Your task to perform on an android device: turn on translation in the chrome app Image 0: 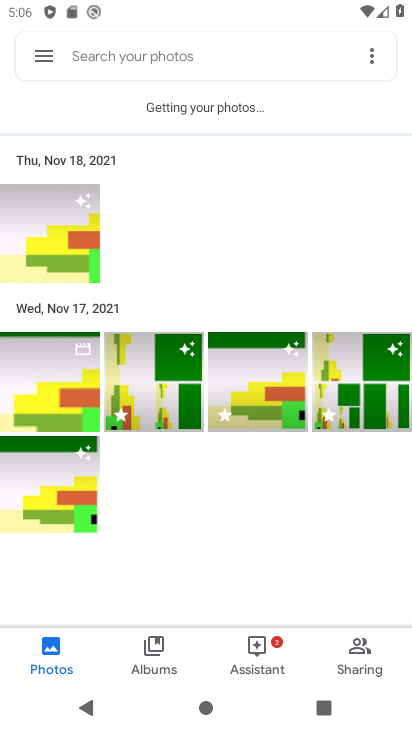
Step 0: press back button
Your task to perform on an android device: turn on translation in the chrome app Image 1: 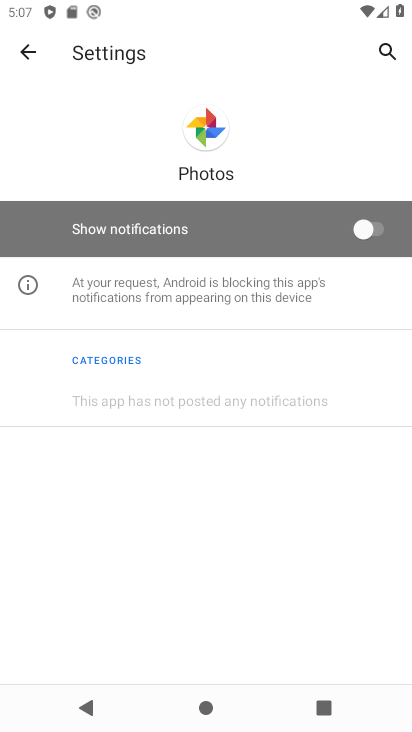
Step 1: press back button
Your task to perform on an android device: turn on translation in the chrome app Image 2: 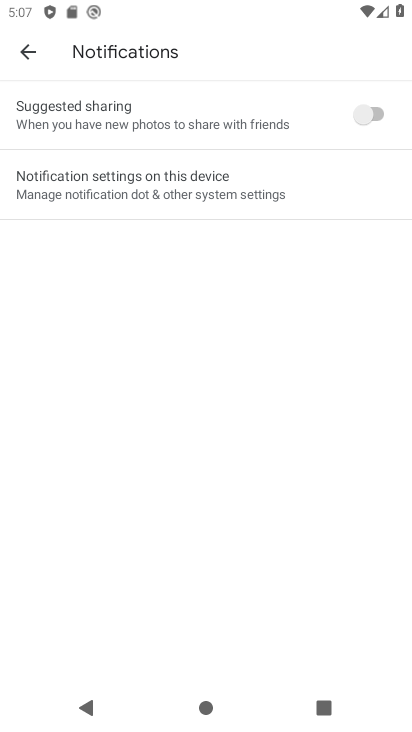
Step 2: press home button
Your task to perform on an android device: turn on translation in the chrome app Image 3: 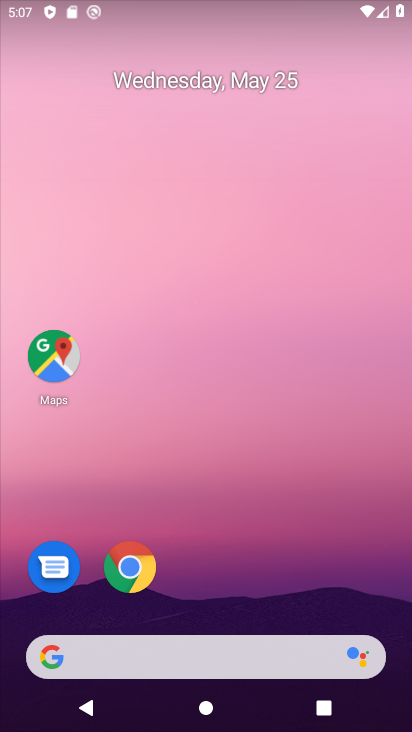
Step 3: drag from (265, 503) to (239, 62)
Your task to perform on an android device: turn on translation in the chrome app Image 4: 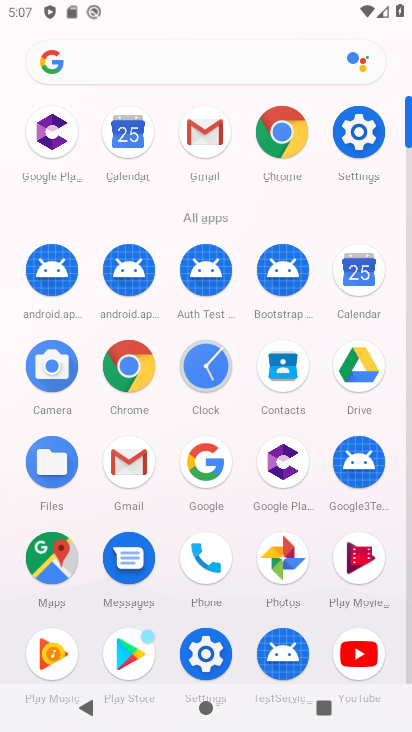
Step 4: click (131, 359)
Your task to perform on an android device: turn on translation in the chrome app Image 5: 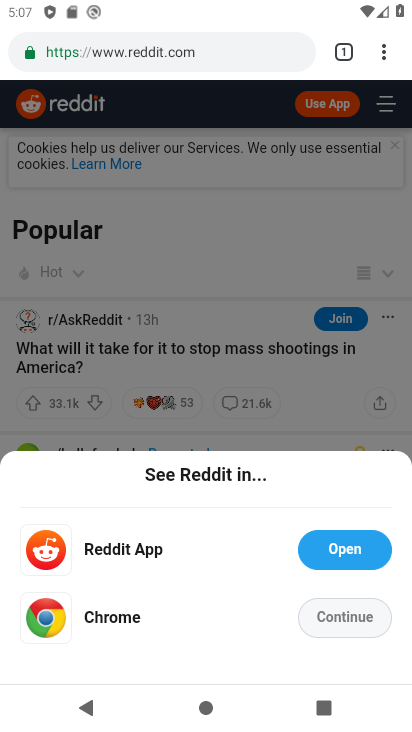
Step 5: drag from (388, 48) to (220, 620)
Your task to perform on an android device: turn on translation in the chrome app Image 6: 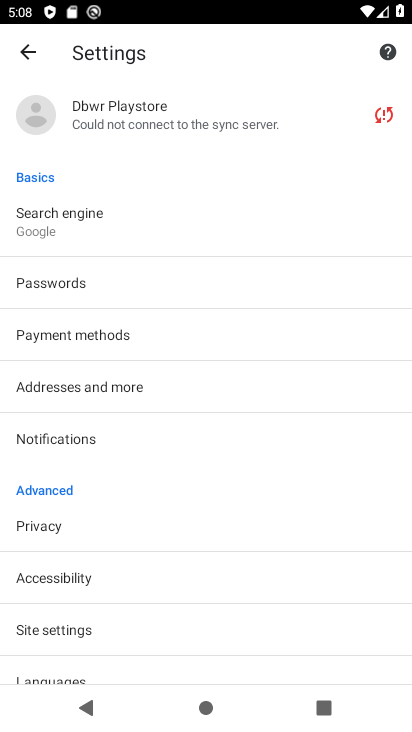
Step 6: drag from (179, 630) to (235, 224)
Your task to perform on an android device: turn on translation in the chrome app Image 7: 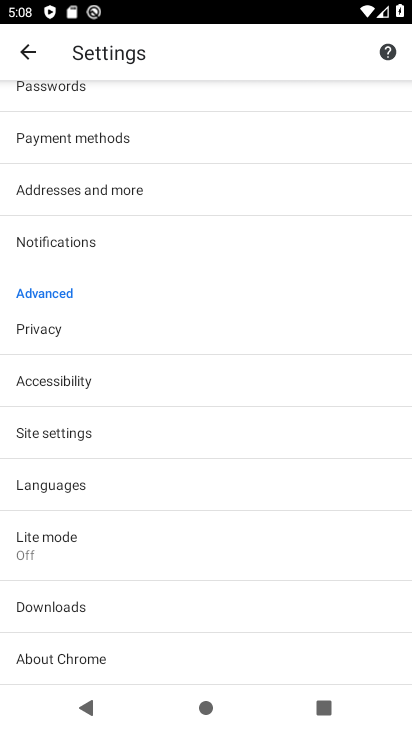
Step 7: click (152, 484)
Your task to perform on an android device: turn on translation in the chrome app Image 8: 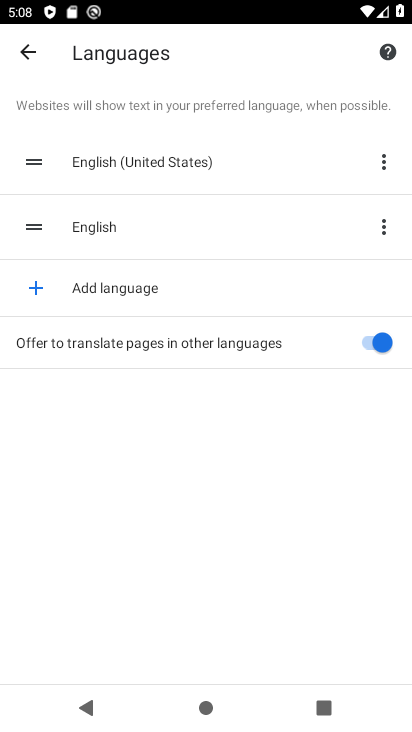
Step 8: task complete